Your task to perform on an android device: Open calendar and show me the third week of next month Image 0: 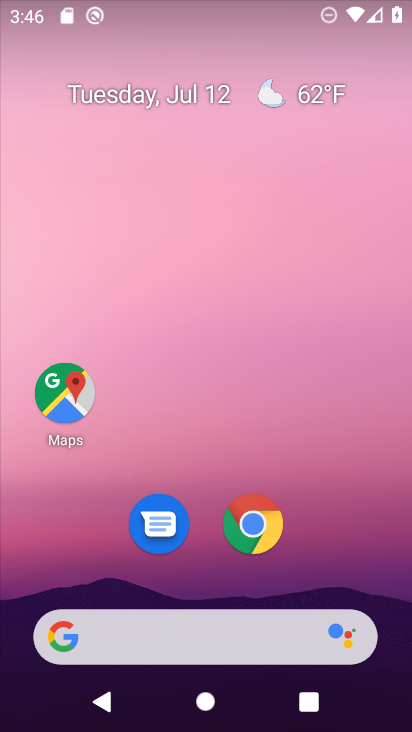
Step 0: drag from (337, 576) to (320, 37)
Your task to perform on an android device: Open calendar and show me the third week of next month Image 1: 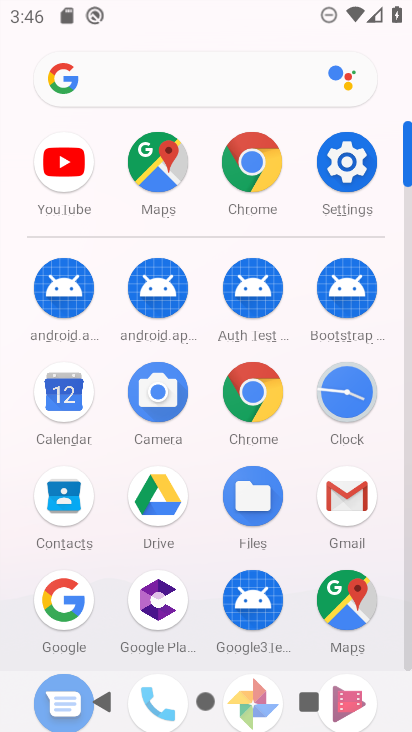
Step 1: click (68, 389)
Your task to perform on an android device: Open calendar and show me the third week of next month Image 2: 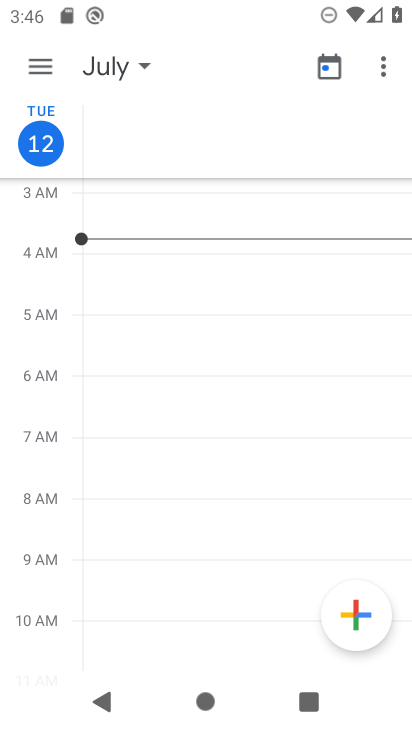
Step 2: click (47, 68)
Your task to perform on an android device: Open calendar and show me the third week of next month Image 3: 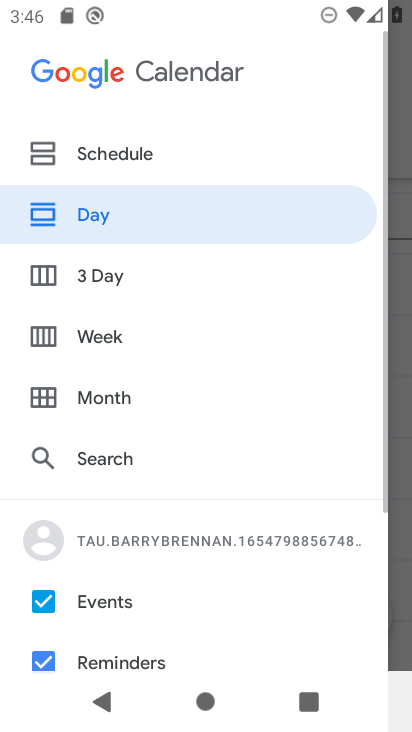
Step 3: click (42, 393)
Your task to perform on an android device: Open calendar and show me the third week of next month Image 4: 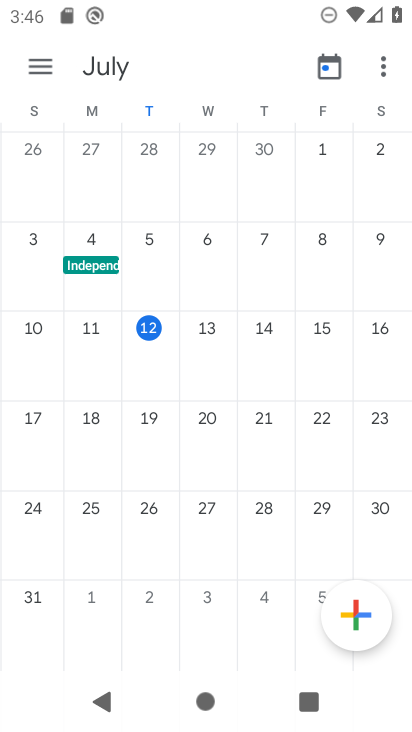
Step 4: drag from (382, 459) to (1, 356)
Your task to perform on an android device: Open calendar and show me the third week of next month Image 5: 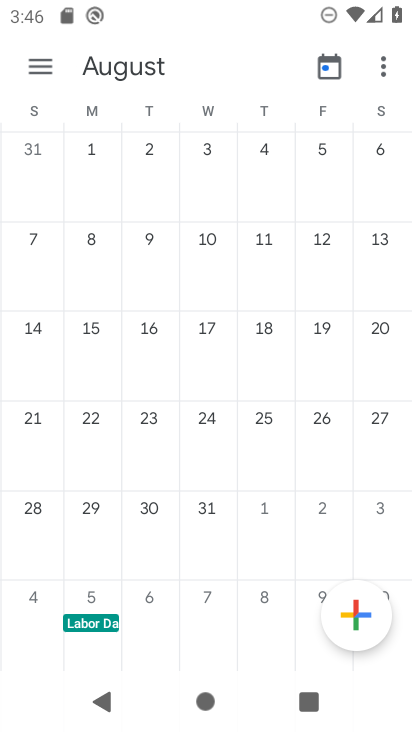
Step 5: click (34, 410)
Your task to perform on an android device: Open calendar and show me the third week of next month Image 6: 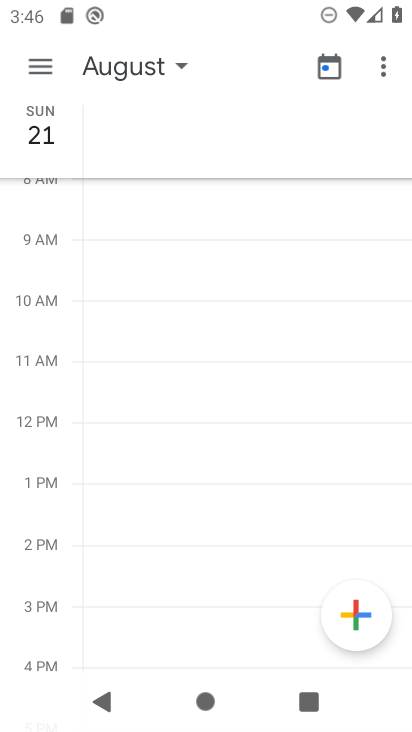
Step 6: click (43, 58)
Your task to perform on an android device: Open calendar and show me the third week of next month Image 7: 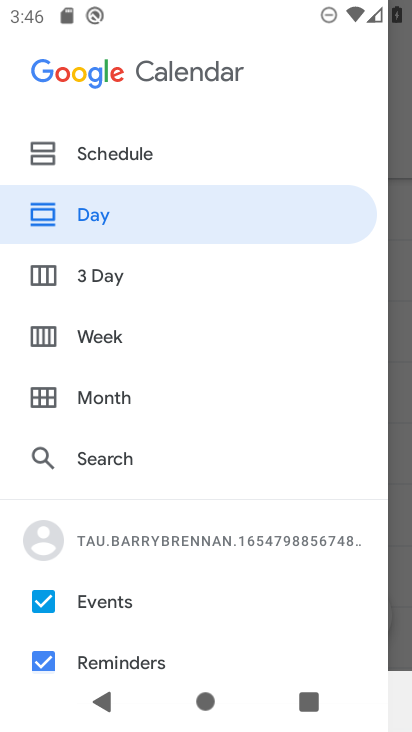
Step 7: click (50, 334)
Your task to perform on an android device: Open calendar and show me the third week of next month Image 8: 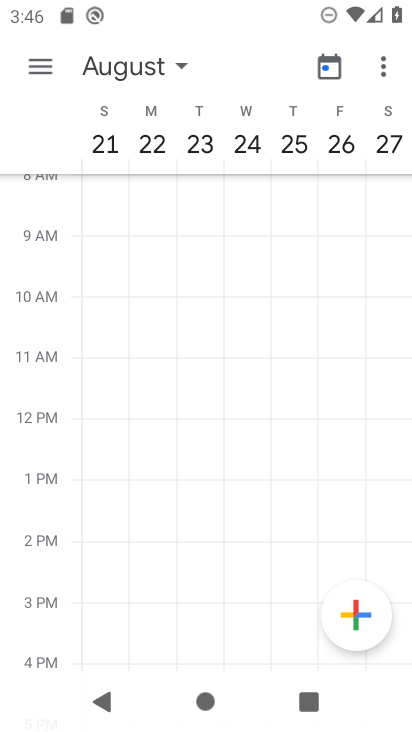
Step 8: task complete